Your task to perform on an android device: Go to privacy settings Image 0: 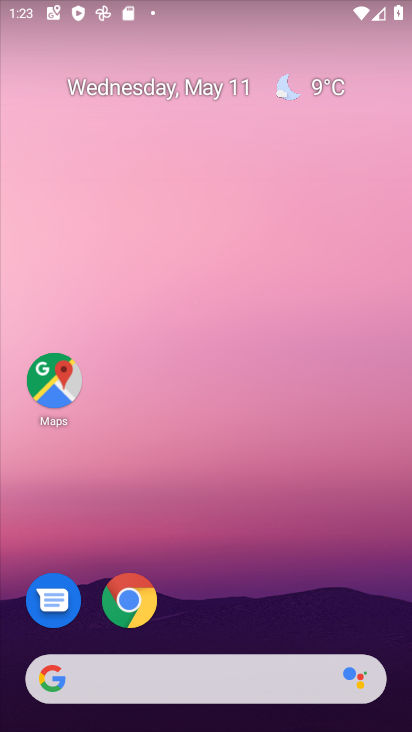
Step 0: drag from (204, 679) to (244, 87)
Your task to perform on an android device: Go to privacy settings Image 1: 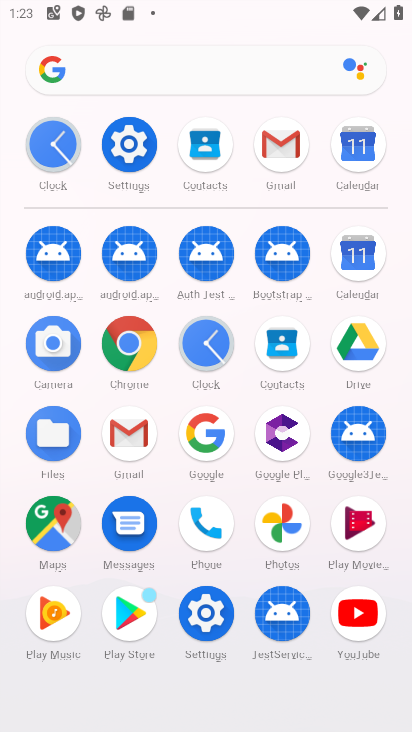
Step 1: click (129, 133)
Your task to perform on an android device: Go to privacy settings Image 2: 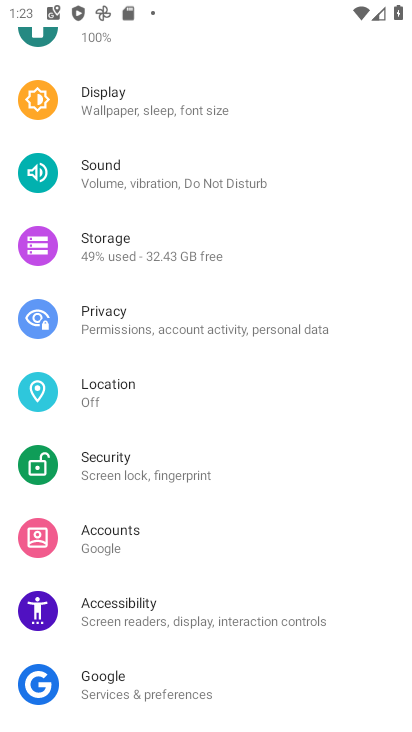
Step 2: click (186, 315)
Your task to perform on an android device: Go to privacy settings Image 3: 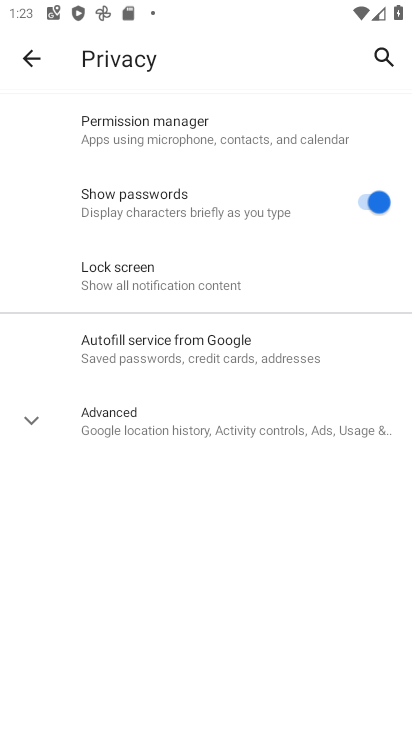
Step 3: task complete